Your task to perform on an android device: read, delete, or share a saved page in the chrome app Image 0: 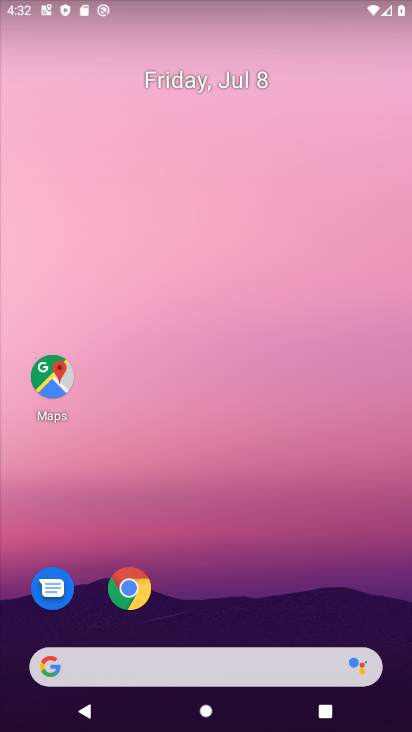
Step 0: drag from (232, 612) to (274, 144)
Your task to perform on an android device: read, delete, or share a saved page in the chrome app Image 1: 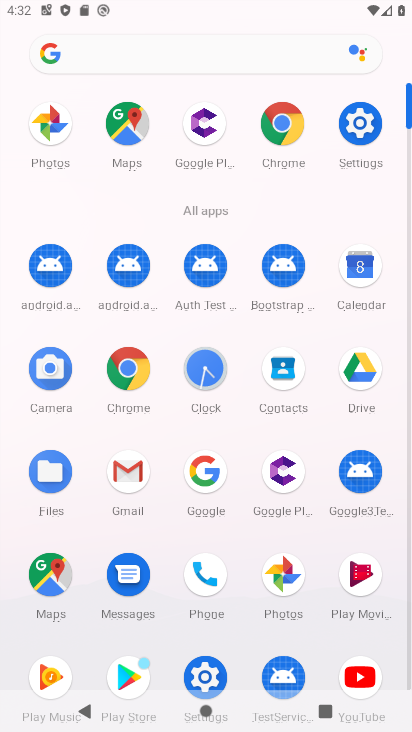
Step 1: click (137, 378)
Your task to perform on an android device: read, delete, or share a saved page in the chrome app Image 2: 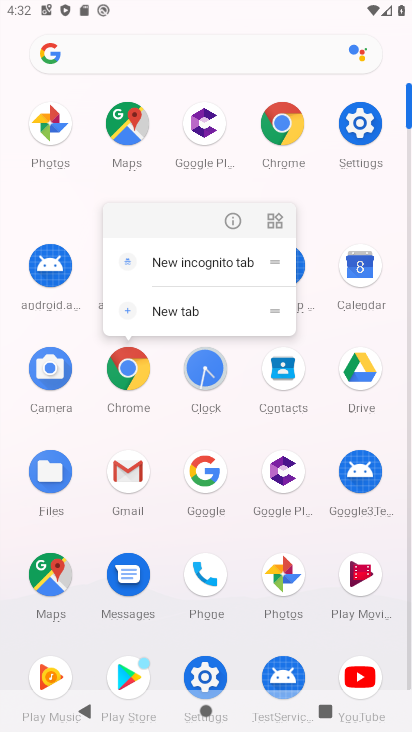
Step 2: click (122, 372)
Your task to perform on an android device: read, delete, or share a saved page in the chrome app Image 3: 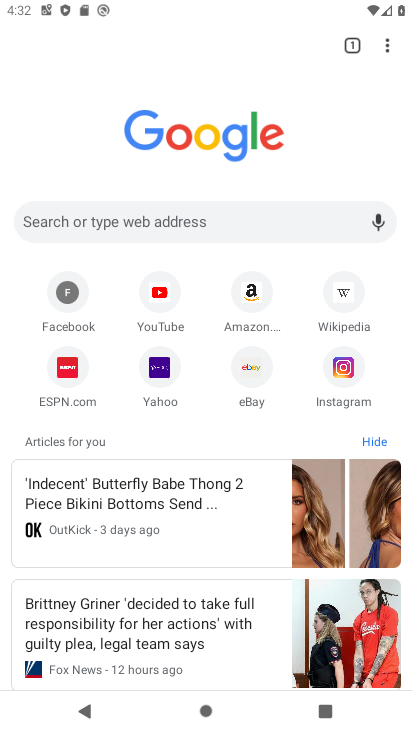
Step 3: click (385, 45)
Your task to perform on an android device: read, delete, or share a saved page in the chrome app Image 4: 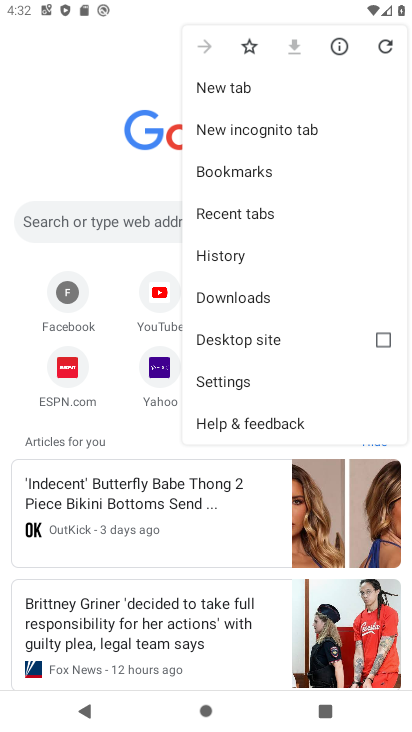
Step 4: click (235, 295)
Your task to perform on an android device: read, delete, or share a saved page in the chrome app Image 5: 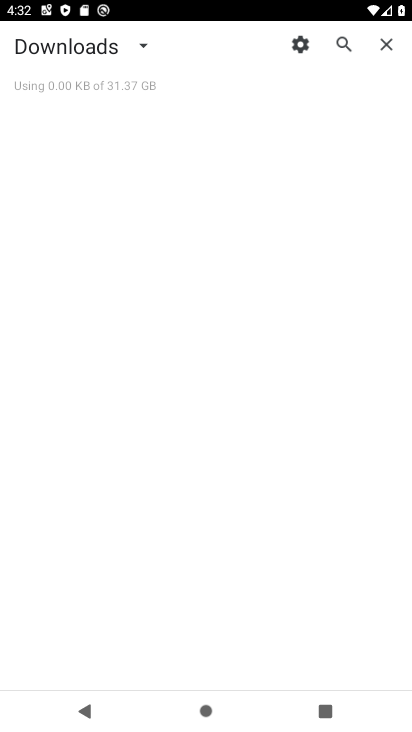
Step 5: task complete